Your task to perform on an android device: Open internet settings Image 0: 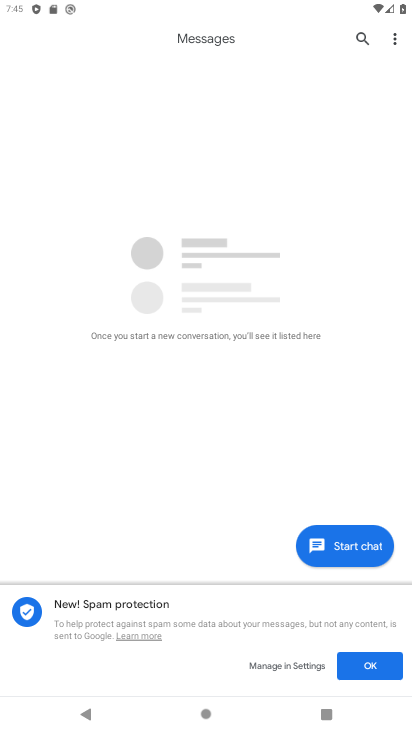
Step 0: press home button
Your task to perform on an android device: Open internet settings Image 1: 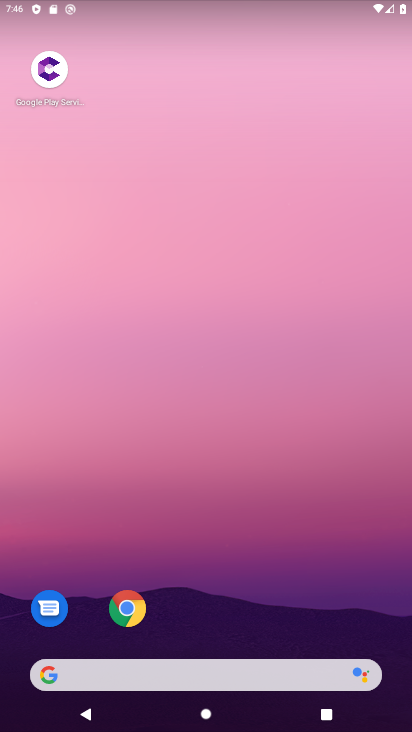
Step 1: drag from (23, 697) to (85, 255)
Your task to perform on an android device: Open internet settings Image 2: 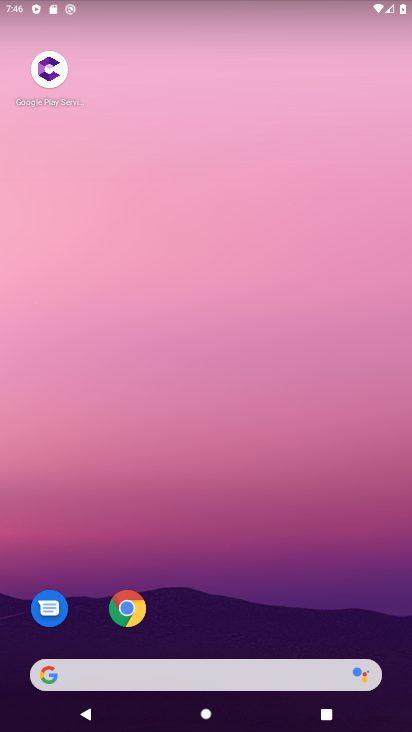
Step 2: drag from (45, 693) to (78, 23)
Your task to perform on an android device: Open internet settings Image 3: 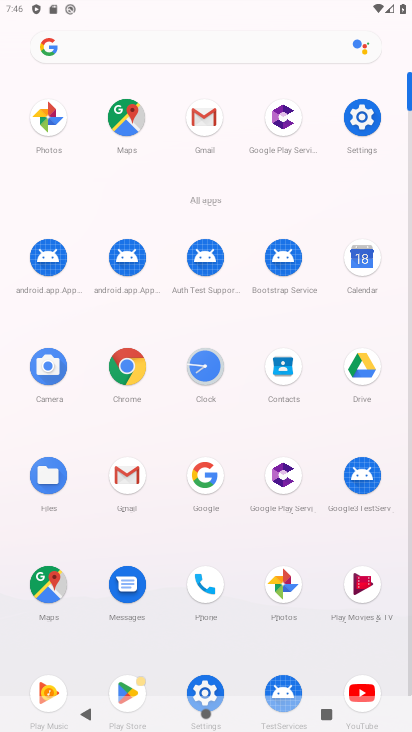
Step 3: click (209, 682)
Your task to perform on an android device: Open internet settings Image 4: 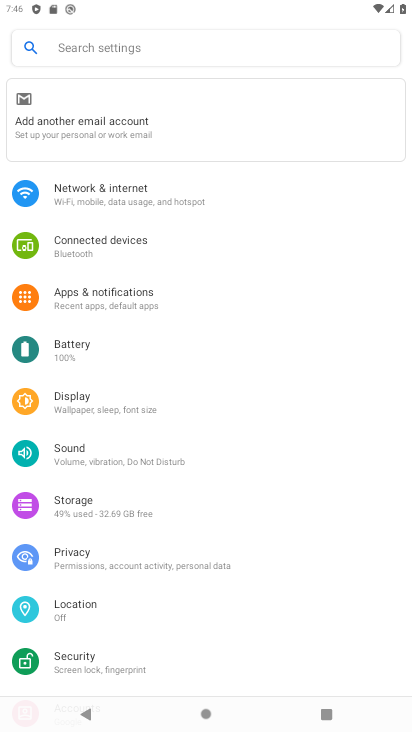
Step 4: click (114, 196)
Your task to perform on an android device: Open internet settings Image 5: 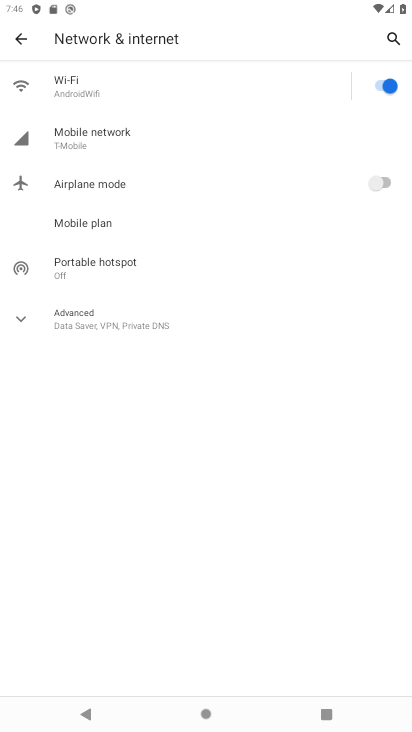
Step 5: task complete